Your task to perform on an android device: turn off notifications settings in the gmail app Image 0: 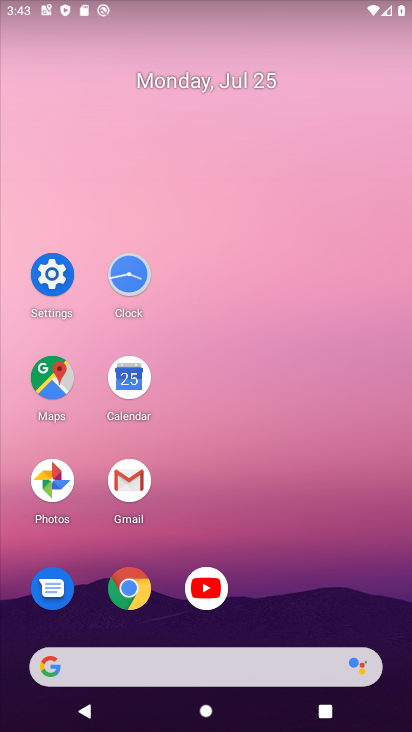
Step 0: click (127, 483)
Your task to perform on an android device: turn off notifications settings in the gmail app Image 1: 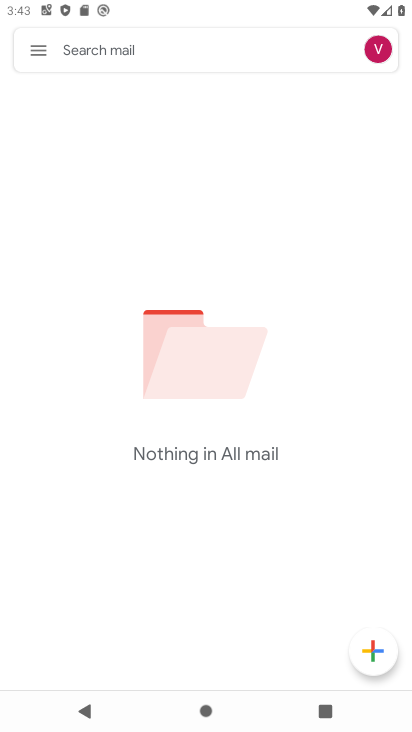
Step 1: click (32, 48)
Your task to perform on an android device: turn off notifications settings in the gmail app Image 2: 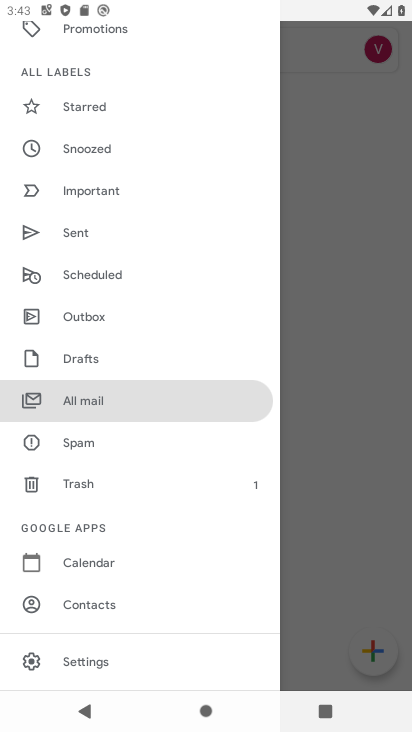
Step 2: click (85, 658)
Your task to perform on an android device: turn off notifications settings in the gmail app Image 3: 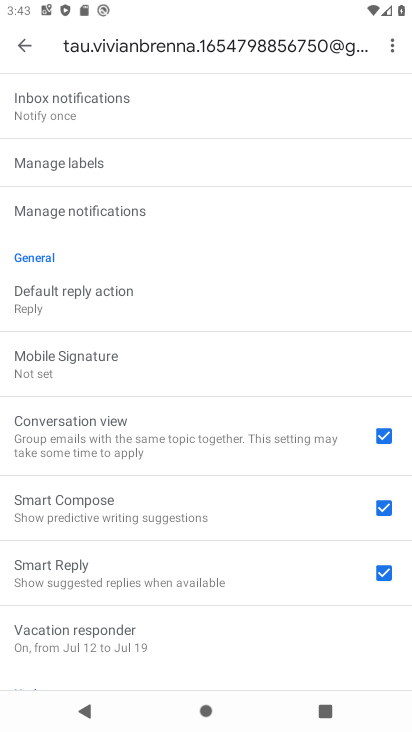
Step 3: click (25, 35)
Your task to perform on an android device: turn off notifications settings in the gmail app Image 4: 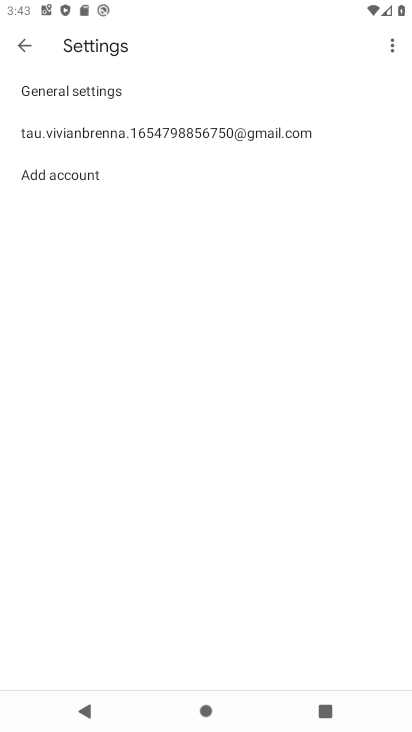
Step 4: click (61, 90)
Your task to perform on an android device: turn off notifications settings in the gmail app Image 5: 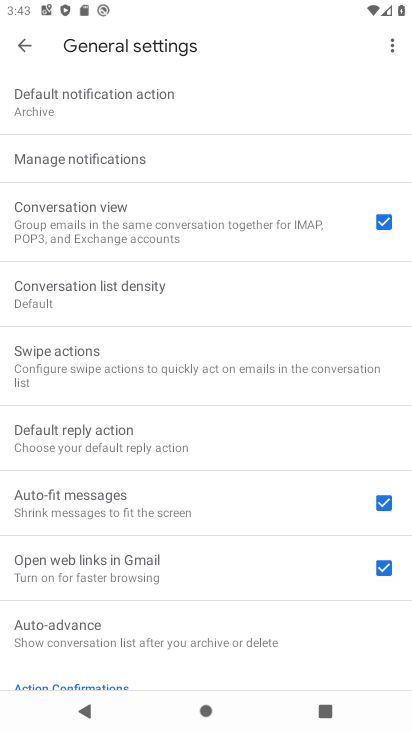
Step 5: click (92, 155)
Your task to perform on an android device: turn off notifications settings in the gmail app Image 6: 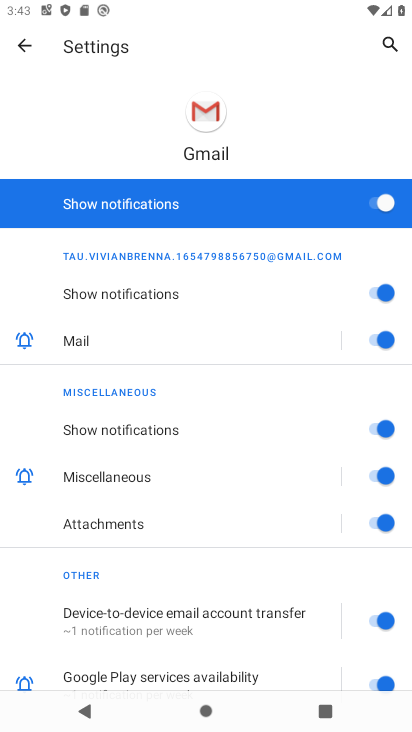
Step 6: click (382, 211)
Your task to perform on an android device: turn off notifications settings in the gmail app Image 7: 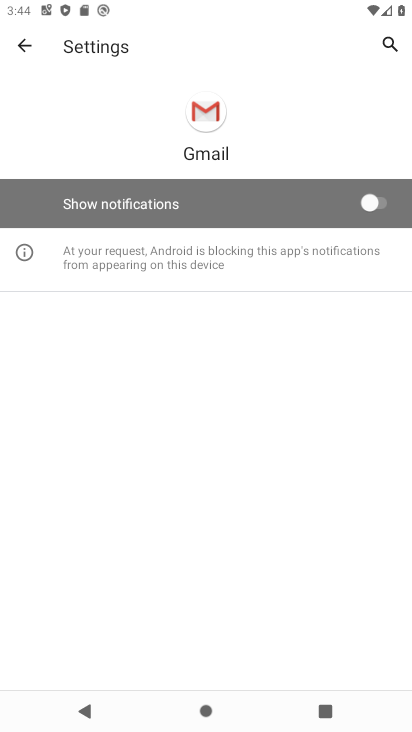
Step 7: task complete